Your task to perform on an android device: turn notification dots on Image 0: 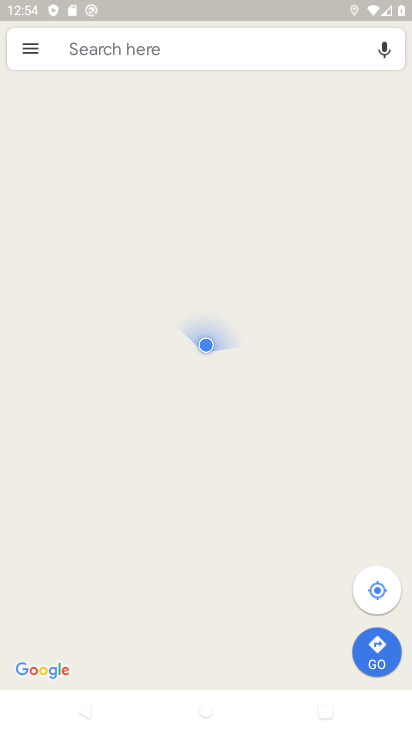
Step 0: press home button
Your task to perform on an android device: turn notification dots on Image 1: 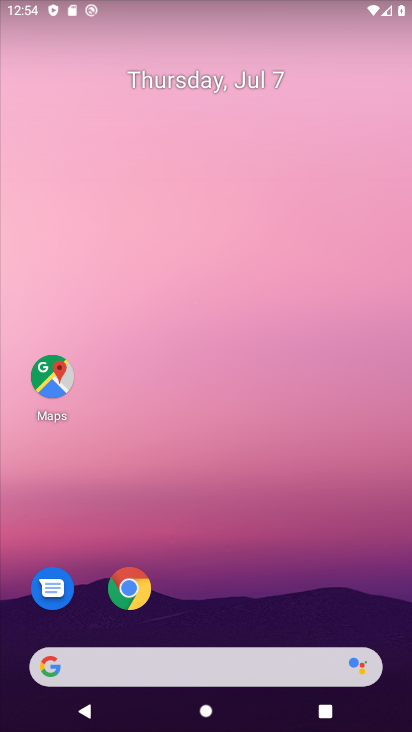
Step 1: drag from (233, 669) to (255, 239)
Your task to perform on an android device: turn notification dots on Image 2: 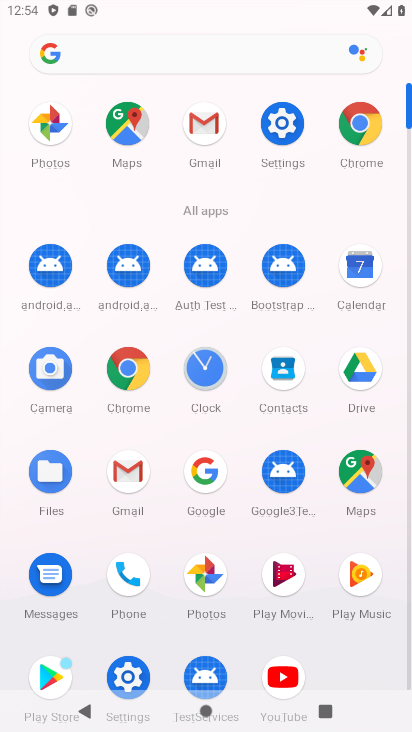
Step 2: click (276, 122)
Your task to perform on an android device: turn notification dots on Image 3: 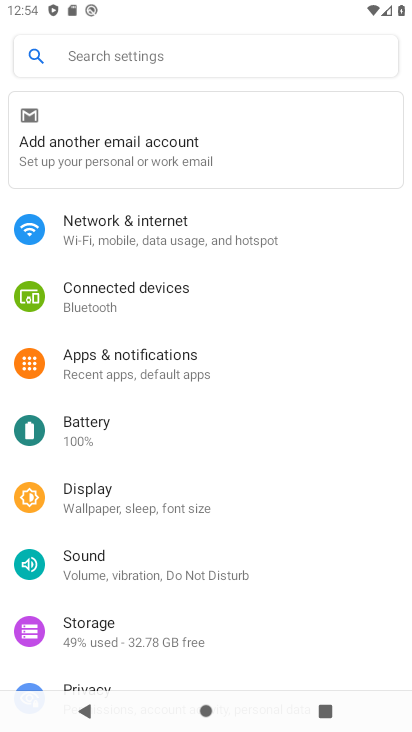
Step 3: click (183, 56)
Your task to perform on an android device: turn notification dots on Image 4: 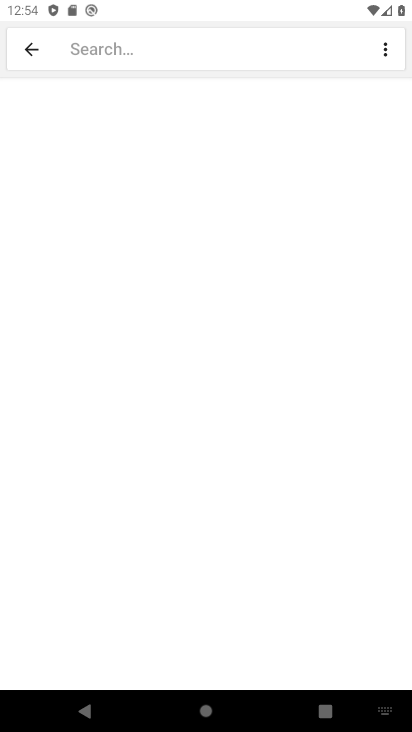
Step 4: type " notification dots "
Your task to perform on an android device: turn notification dots on Image 5: 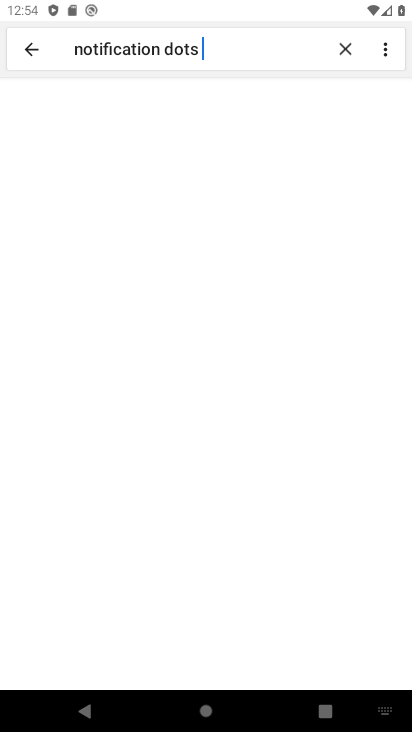
Step 5: drag from (147, 151) to (160, 203)
Your task to perform on an android device: turn notification dots on Image 6: 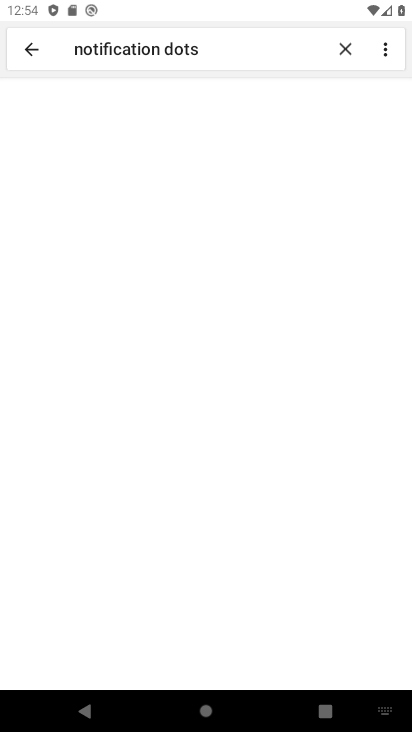
Step 6: click (208, 47)
Your task to perform on an android device: turn notification dots on Image 7: 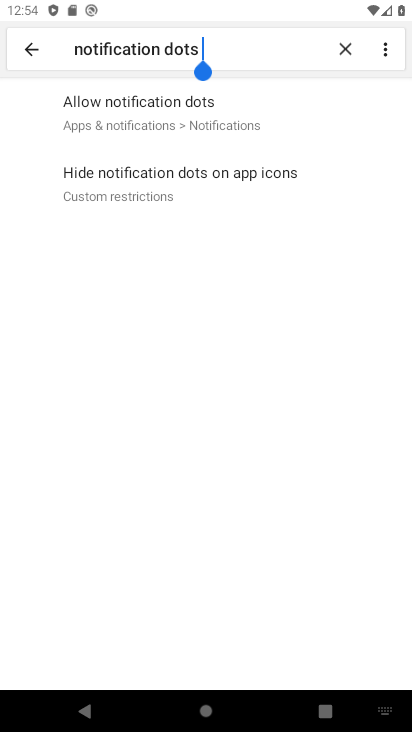
Step 7: click (233, 44)
Your task to perform on an android device: turn notification dots on Image 8: 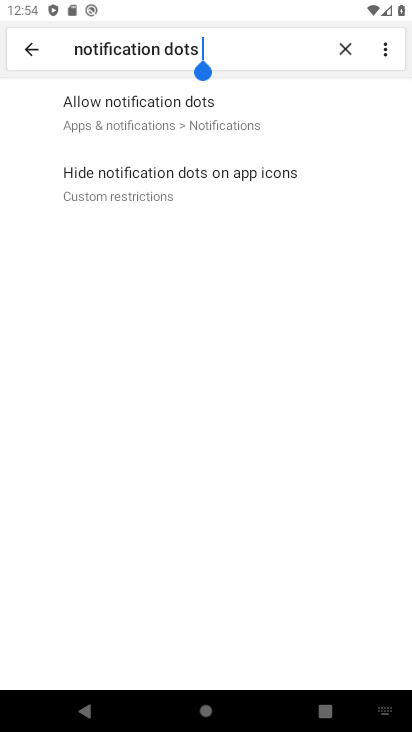
Step 8: click (233, 44)
Your task to perform on an android device: turn notification dots on Image 9: 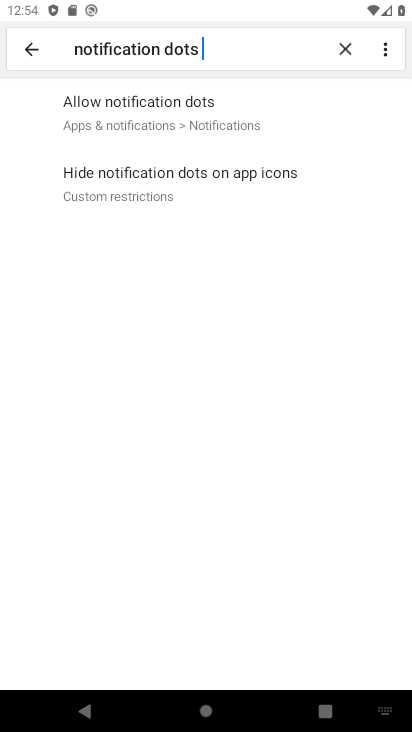
Step 9: click (229, 111)
Your task to perform on an android device: turn notification dots on Image 10: 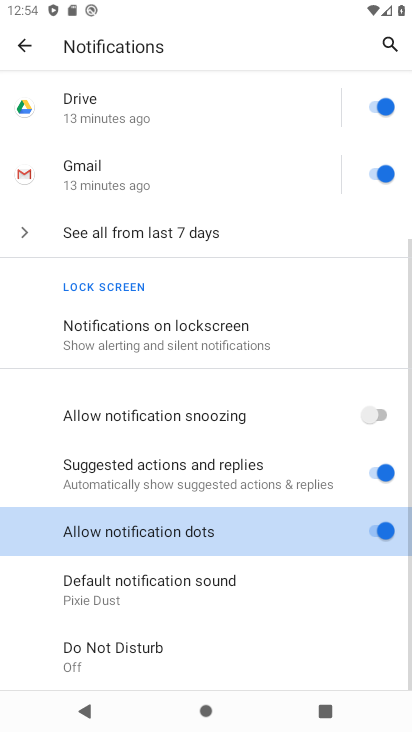
Step 10: task complete